Your task to perform on an android device: Open internet settings Image 0: 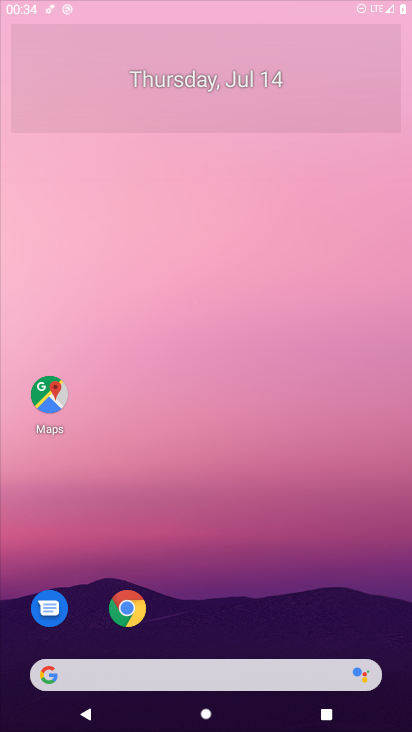
Step 0: press home button
Your task to perform on an android device: Open internet settings Image 1: 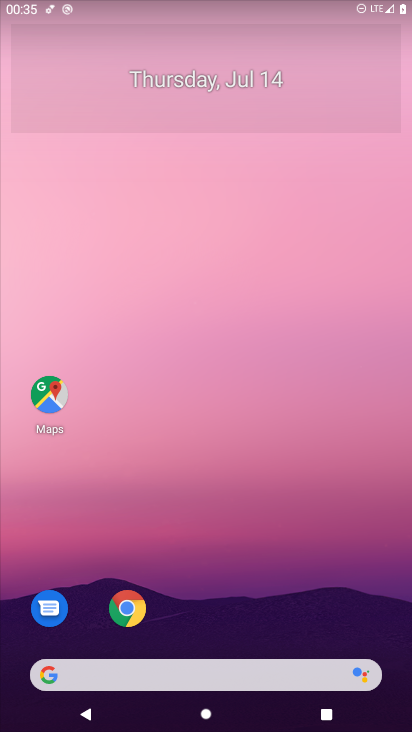
Step 1: drag from (210, 639) to (280, 29)
Your task to perform on an android device: Open internet settings Image 2: 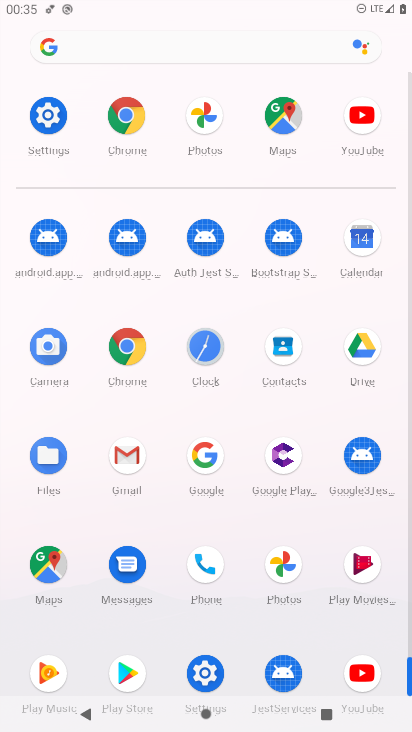
Step 2: click (42, 123)
Your task to perform on an android device: Open internet settings Image 3: 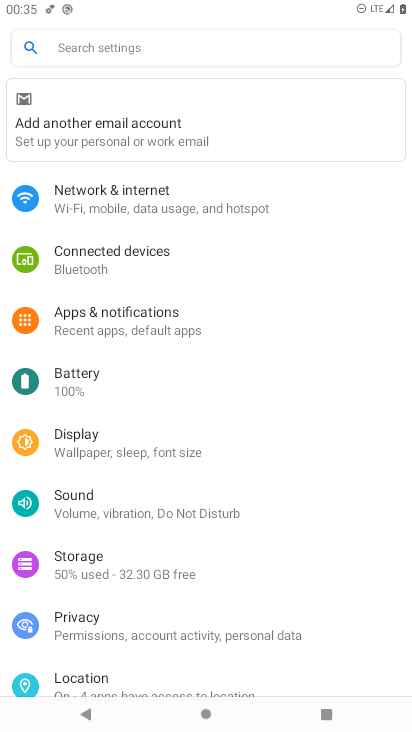
Step 3: click (123, 204)
Your task to perform on an android device: Open internet settings Image 4: 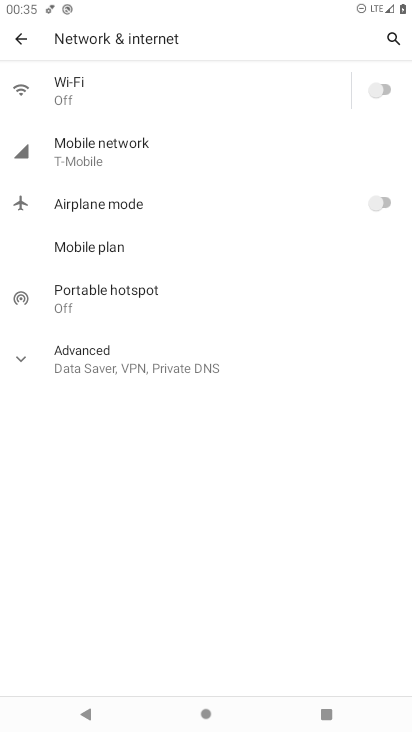
Step 4: task complete